Your task to perform on an android device: Go to battery settings Image 0: 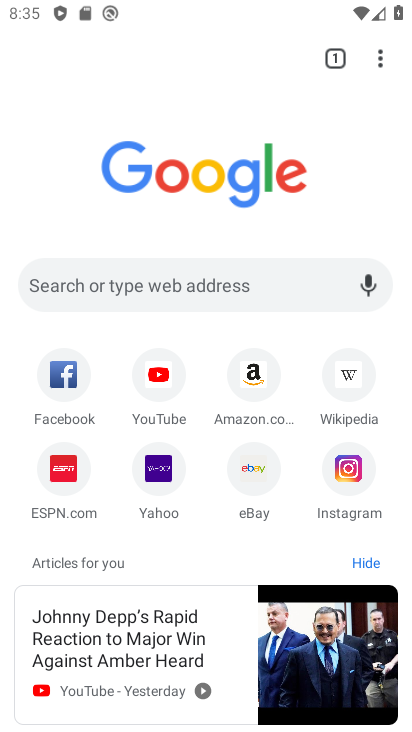
Step 0: press home button
Your task to perform on an android device: Go to battery settings Image 1: 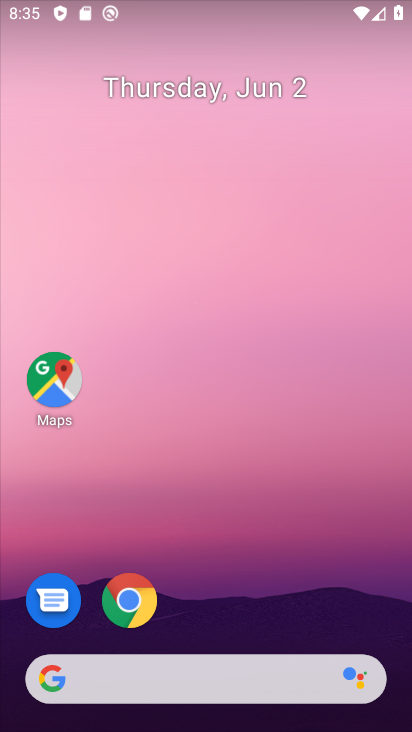
Step 1: drag from (175, 482) to (226, 3)
Your task to perform on an android device: Go to battery settings Image 2: 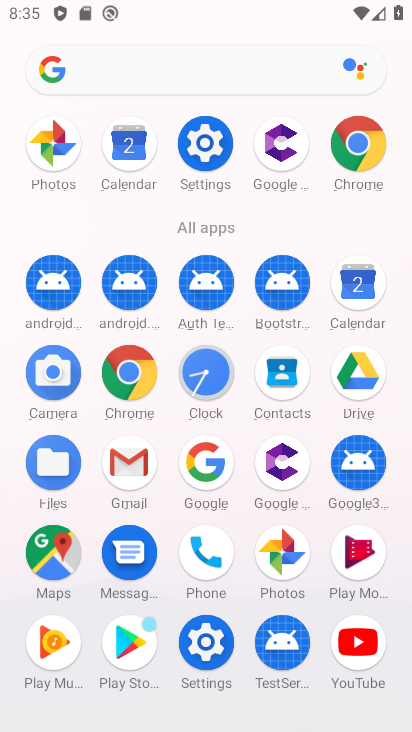
Step 2: click (202, 163)
Your task to perform on an android device: Go to battery settings Image 3: 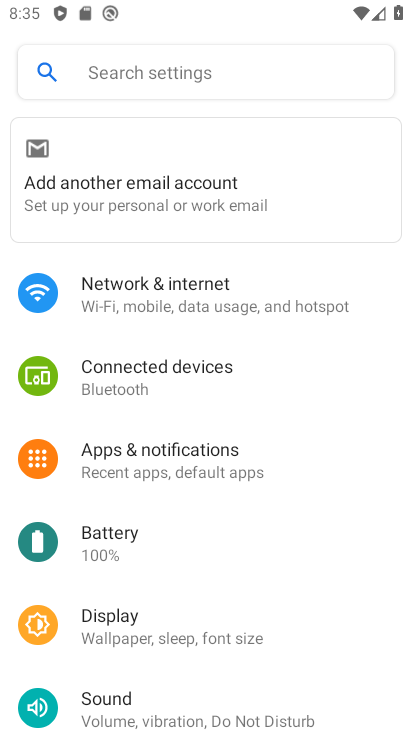
Step 3: click (132, 544)
Your task to perform on an android device: Go to battery settings Image 4: 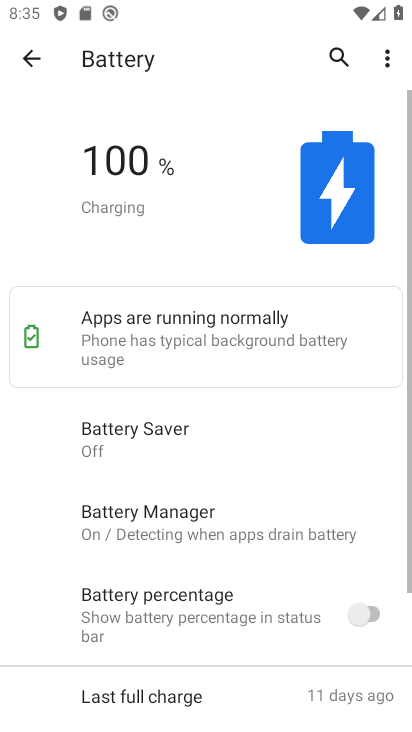
Step 4: task complete